Your task to perform on an android device: toggle show notifications on the lock screen Image 0: 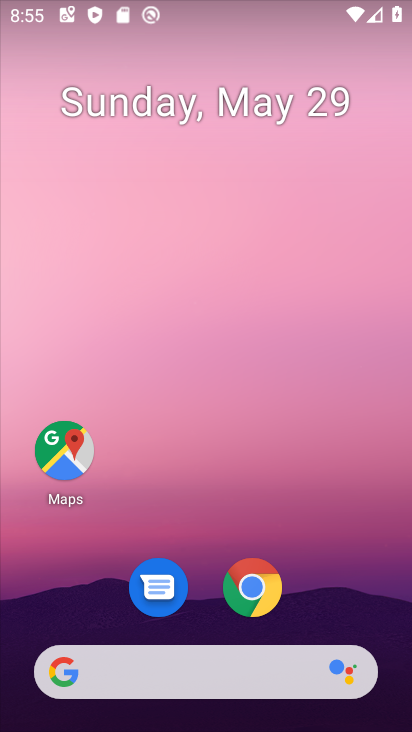
Step 0: drag from (186, 518) to (213, 40)
Your task to perform on an android device: toggle show notifications on the lock screen Image 1: 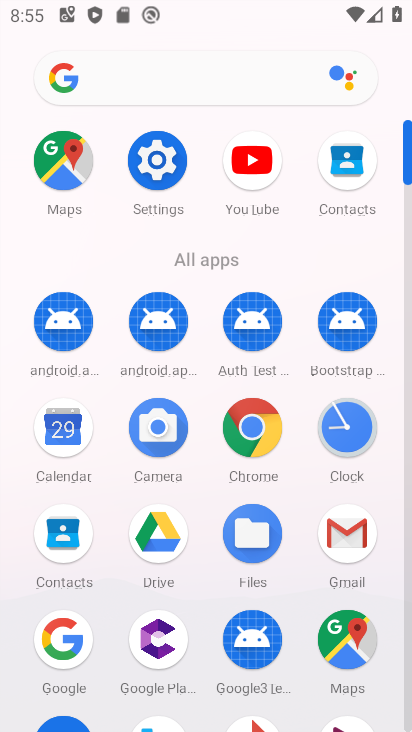
Step 1: click (132, 137)
Your task to perform on an android device: toggle show notifications on the lock screen Image 2: 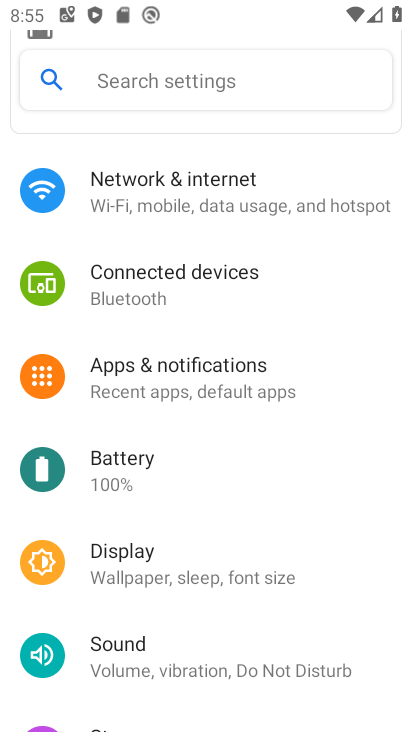
Step 2: click (174, 375)
Your task to perform on an android device: toggle show notifications on the lock screen Image 3: 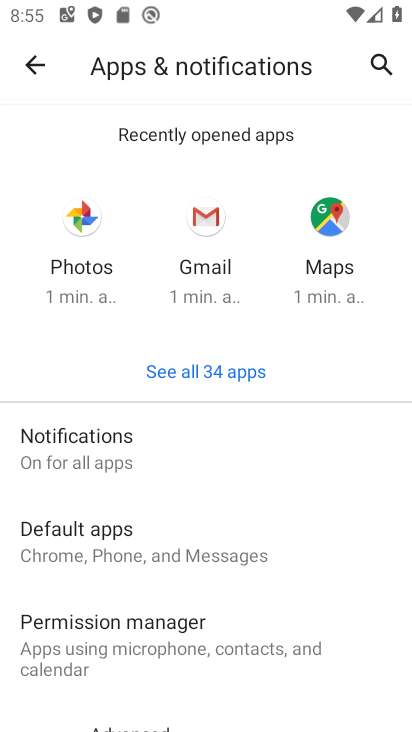
Step 3: click (122, 447)
Your task to perform on an android device: toggle show notifications on the lock screen Image 4: 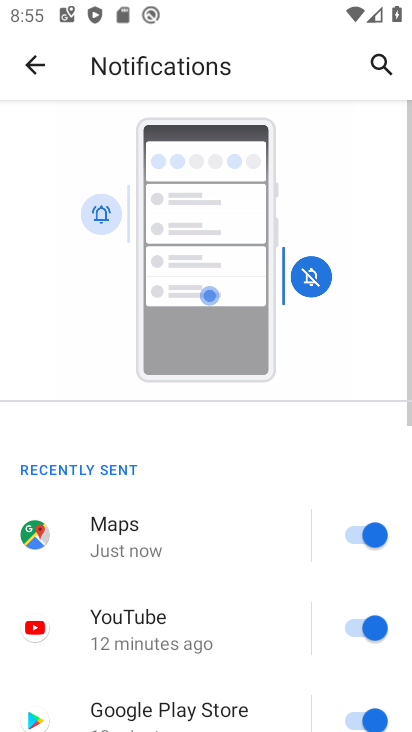
Step 4: drag from (207, 673) to (294, 124)
Your task to perform on an android device: toggle show notifications on the lock screen Image 5: 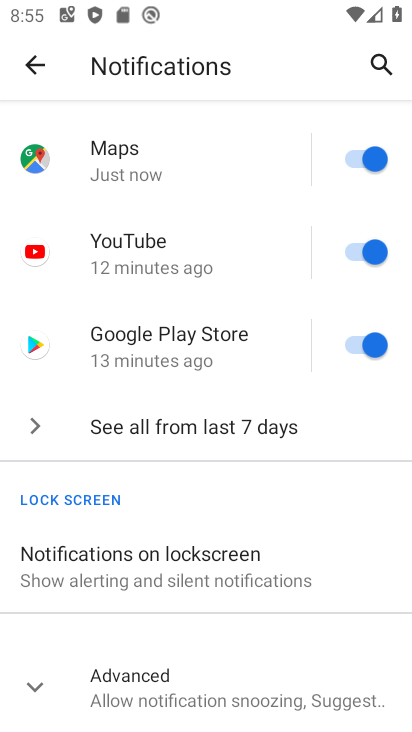
Step 5: click (151, 576)
Your task to perform on an android device: toggle show notifications on the lock screen Image 6: 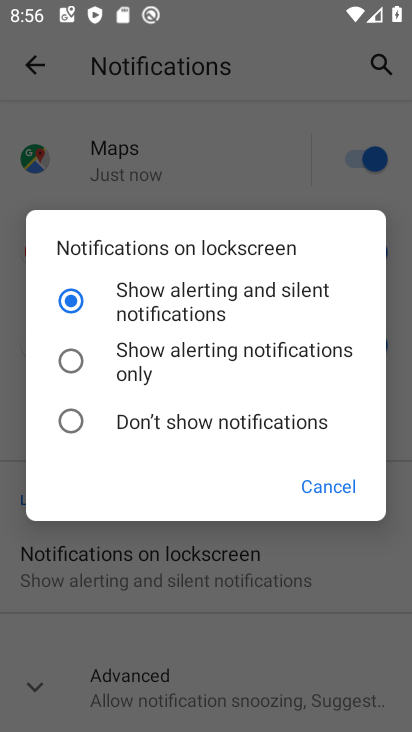
Step 6: click (73, 294)
Your task to perform on an android device: toggle show notifications on the lock screen Image 7: 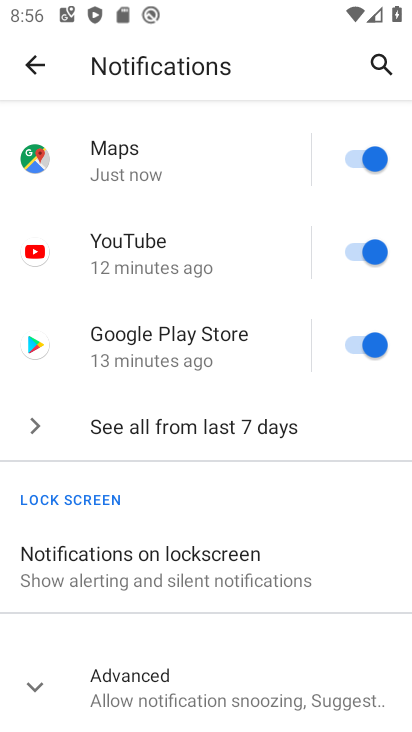
Step 7: task complete